Your task to perform on an android device: Go to wifi settings Image 0: 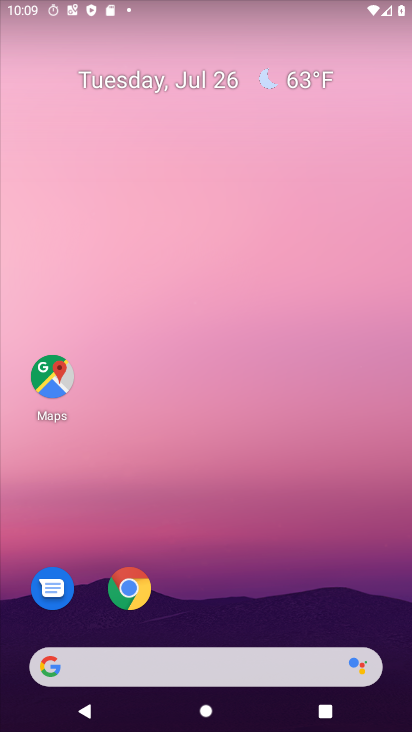
Step 0: drag from (138, 9) to (149, 518)
Your task to perform on an android device: Go to wifi settings Image 1: 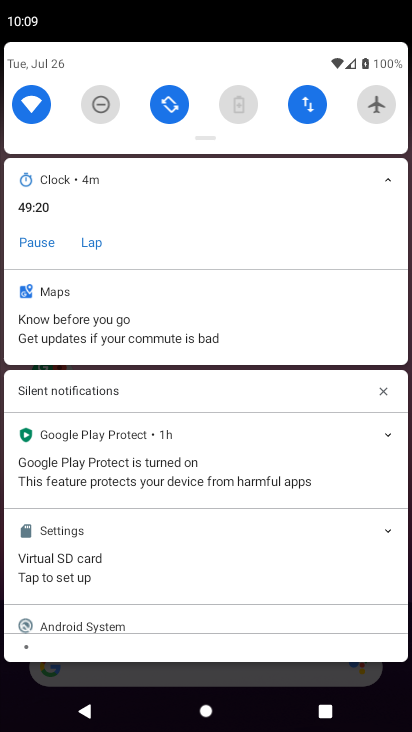
Step 1: click (30, 113)
Your task to perform on an android device: Go to wifi settings Image 2: 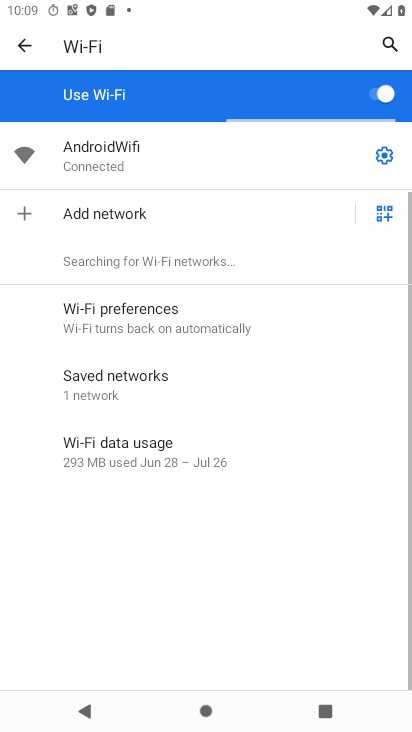
Step 2: task complete